Your task to perform on an android device: turn off location history Image 0: 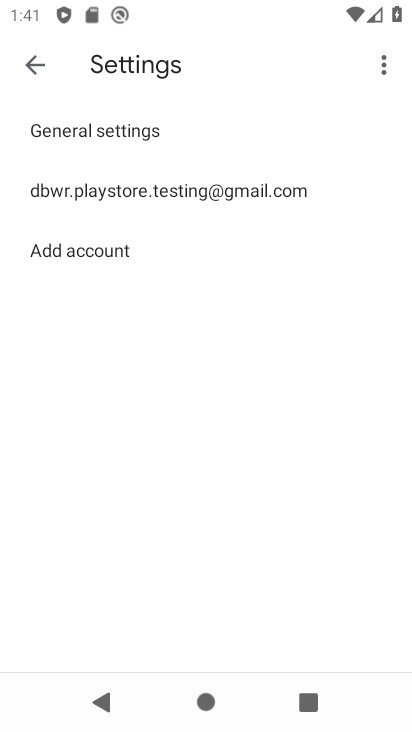
Step 0: press home button
Your task to perform on an android device: turn off location history Image 1: 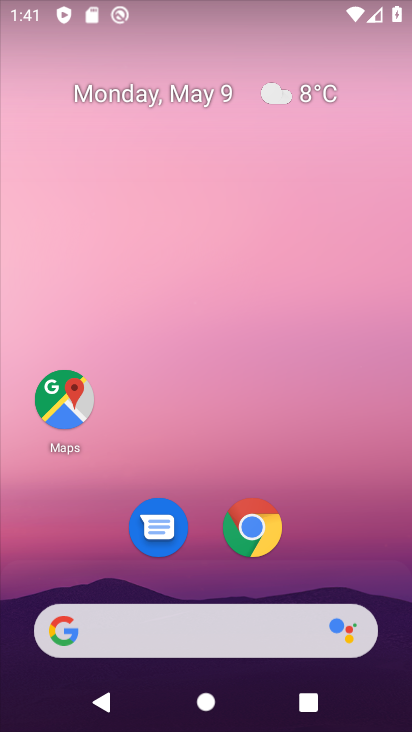
Step 1: drag from (191, 564) to (188, 133)
Your task to perform on an android device: turn off location history Image 2: 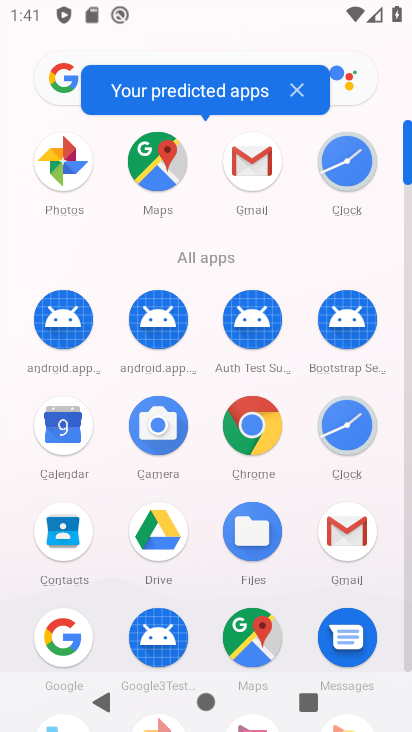
Step 2: drag from (305, 588) to (305, 148)
Your task to perform on an android device: turn off location history Image 3: 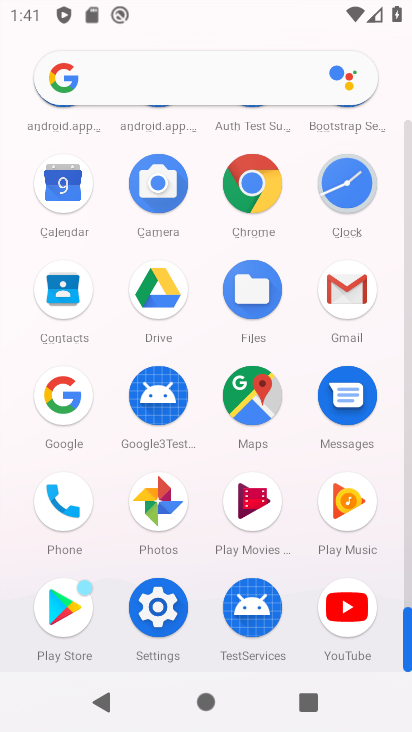
Step 3: click (139, 623)
Your task to perform on an android device: turn off location history Image 4: 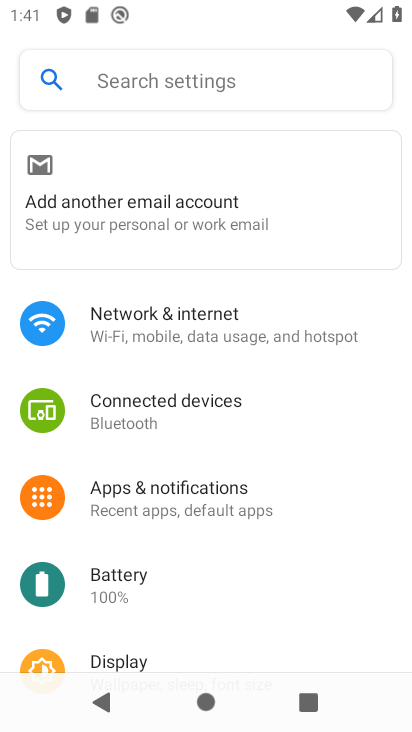
Step 4: drag from (169, 580) to (188, 185)
Your task to perform on an android device: turn off location history Image 5: 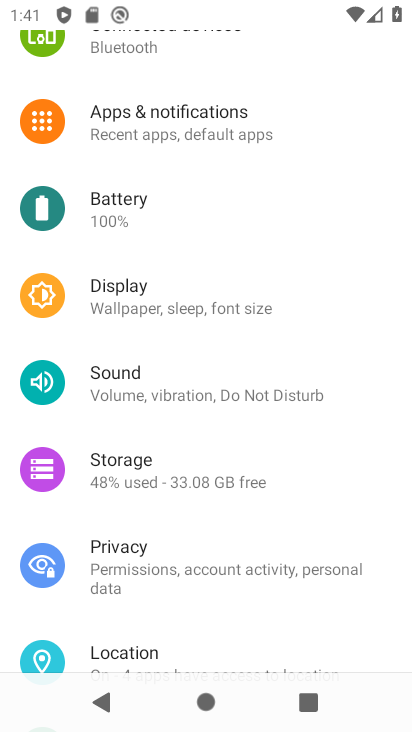
Step 5: drag from (188, 637) to (190, 460)
Your task to perform on an android device: turn off location history Image 6: 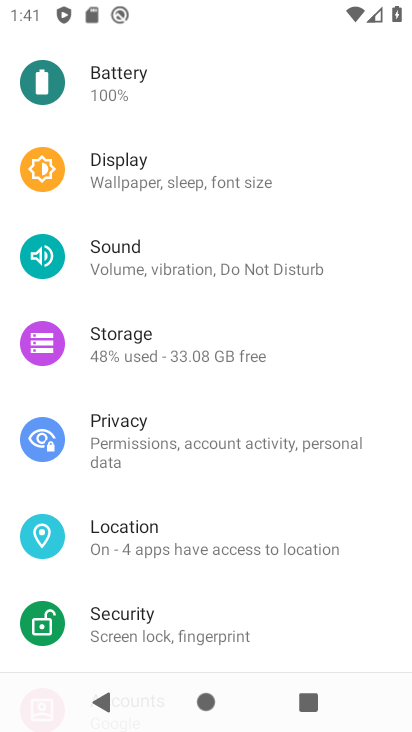
Step 6: click (168, 532)
Your task to perform on an android device: turn off location history Image 7: 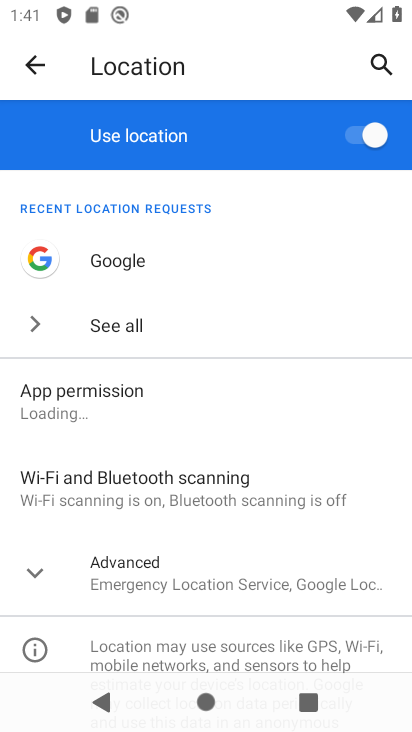
Step 7: click (39, 579)
Your task to perform on an android device: turn off location history Image 8: 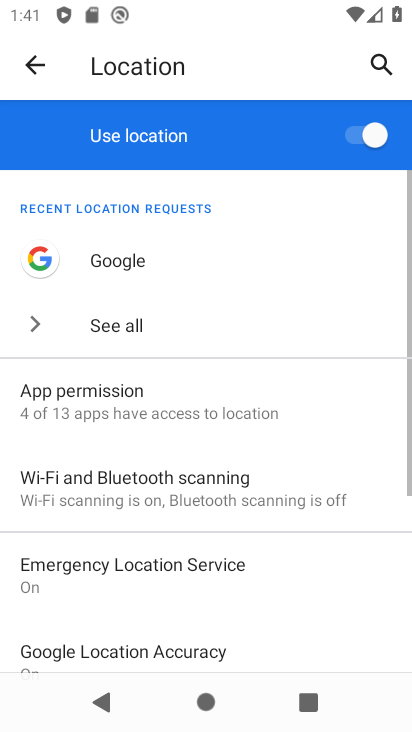
Step 8: drag from (268, 604) to (234, 336)
Your task to perform on an android device: turn off location history Image 9: 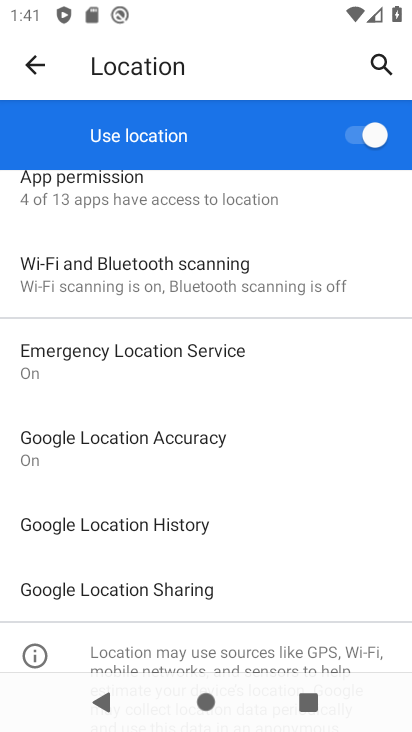
Step 9: click (176, 541)
Your task to perform on an android device: turn off location history Image 10: 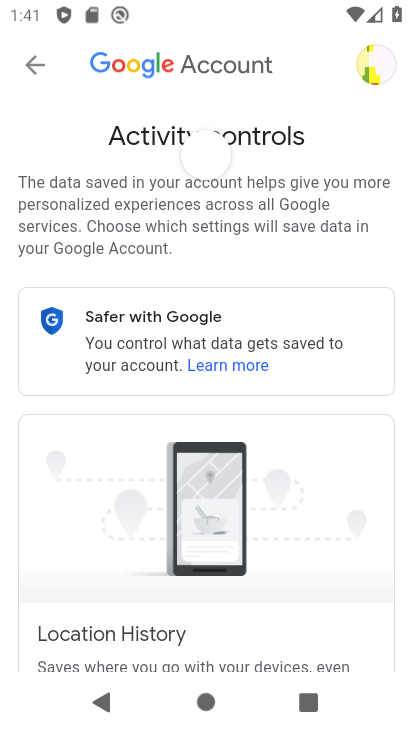
Step 10: drag from (296, 626) to (277, 174)
Your task to perform on an android device: turn off location history Image 11: 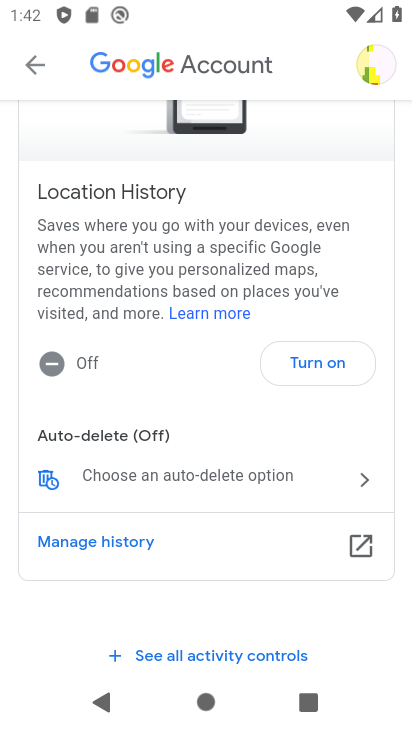
Step 11: click (325, 366)
Your task to perform on an android device: turn off location history Image 12: 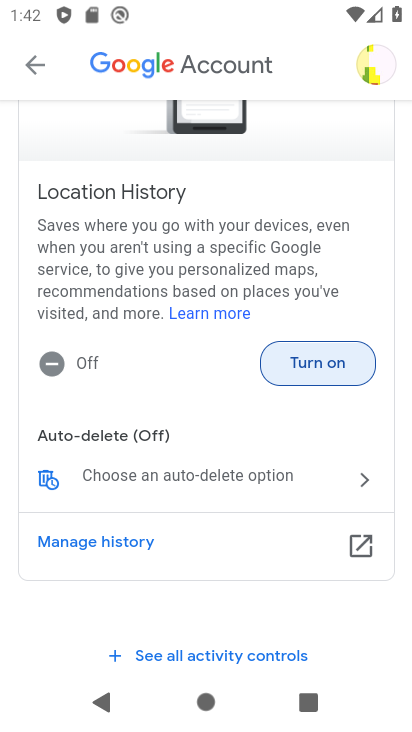
Step 12: click (315, 369)
Your task to perform on an android device: turn off location history Image 13: 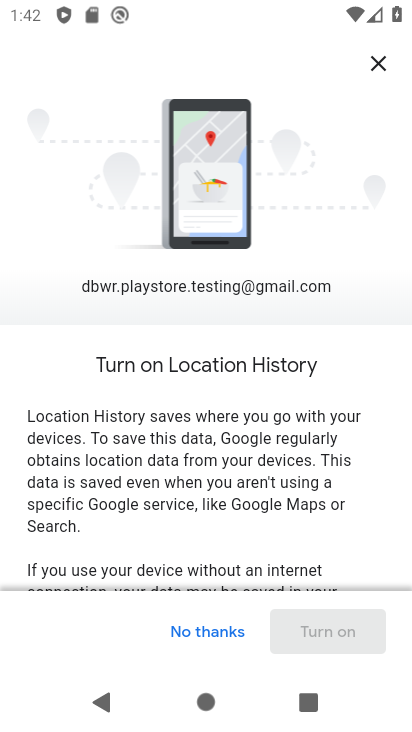
Step 13: drag from (308, 434) to (309, 85)
Your task to perform on an android device: turn off location history Image 14: 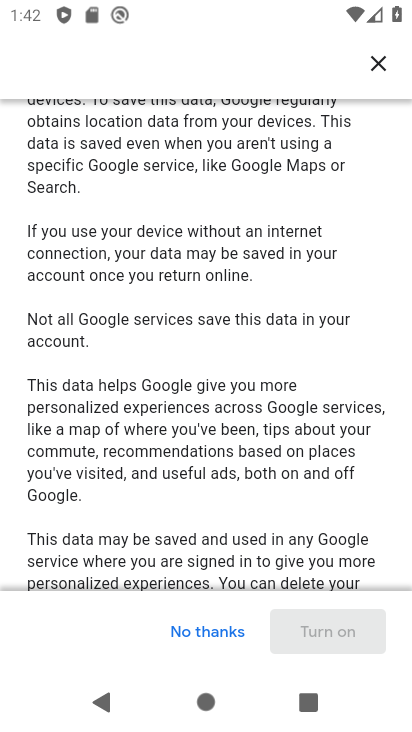
Step 14: drag from (240, 446) to (233, 190)
Your task to perform on an android device: turn off location history Image 15: 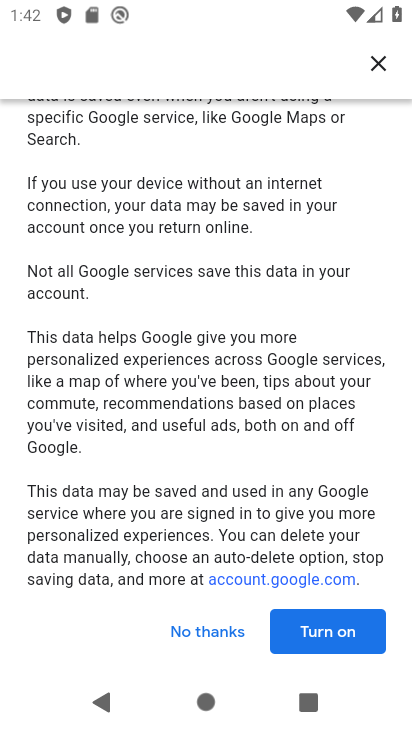
Step 15: click (329, 636)
Your task to perform on an android device: turn off location history Image 16: 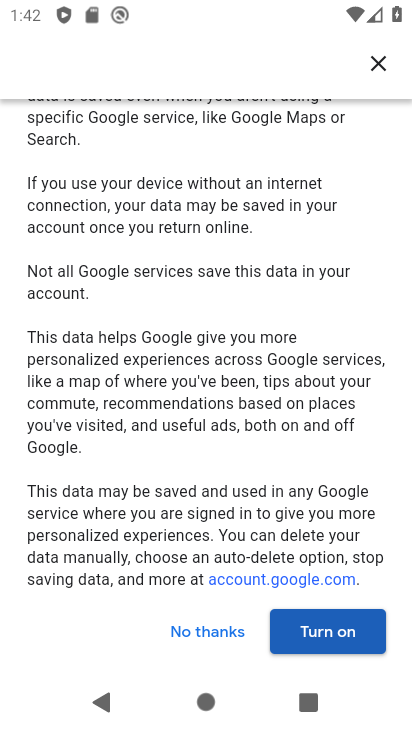
Step 16: click (340, 644)
Your task to perform on an android device: turn off location history Image 17: 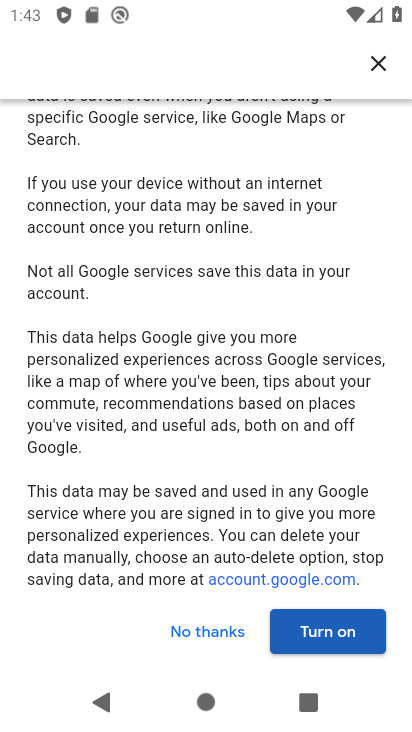
Step 17: click (341, 633)
Your task to perform on an android device: turn off location history Image 18: 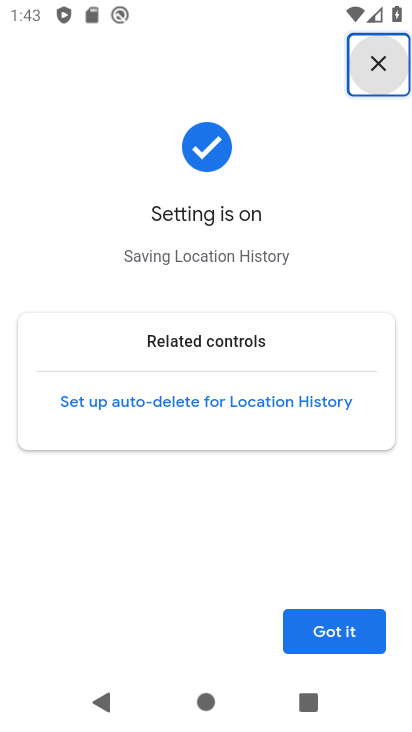
Step 18: click (345, 634)
Your task to perform on an android device: turn off location history Image 19: 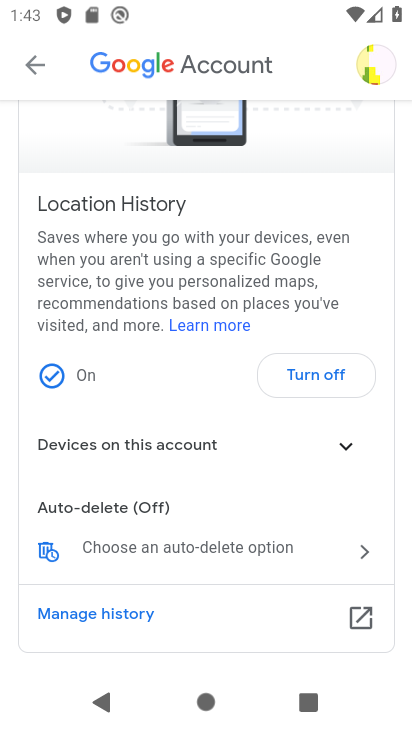
Step 19: task complete